Your task to perform on an android device: Go to CNN.com Image 0: 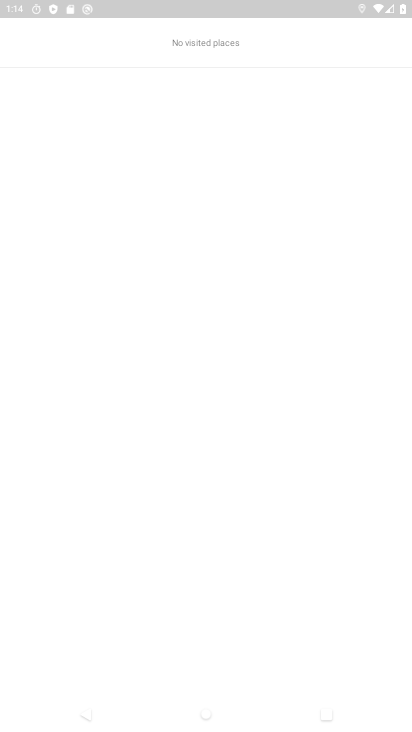
Step 0: press home button
Your task to perform on an android device: Go to CNN.com Image 1: 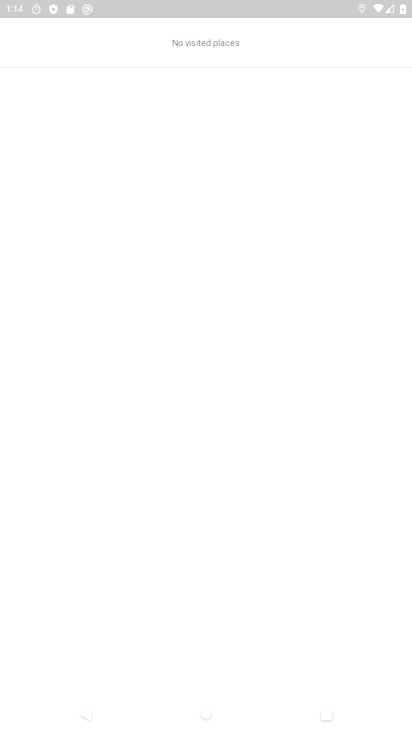
Step 1: drag from (123, 680) to (179, 266)
Your task to perform on an android device: Go to CNN.com Image 2: 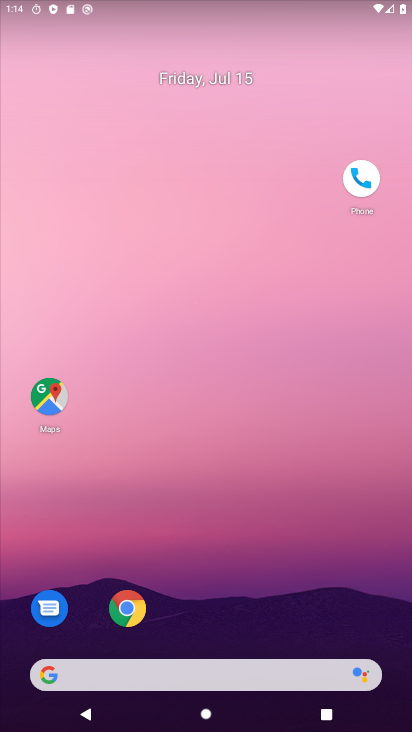
Step 2: drag from (163, 640) to (227, 112)
Your task to perform on an android device: Go to CNN.com Image 3: 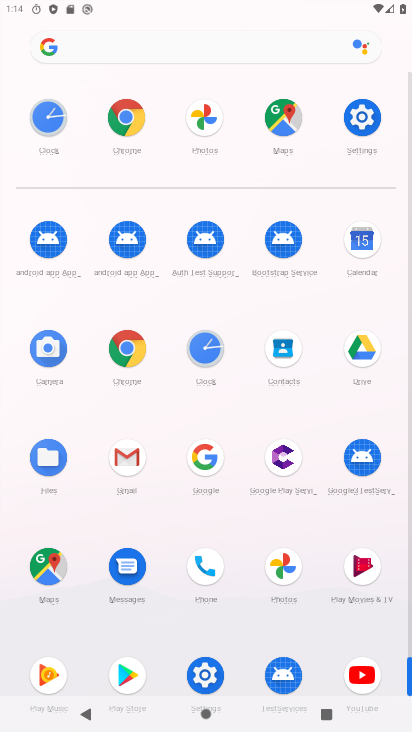
Step 3: click (163, 30)
Your task to perform on an android device: Go to CNN.com Image 4: 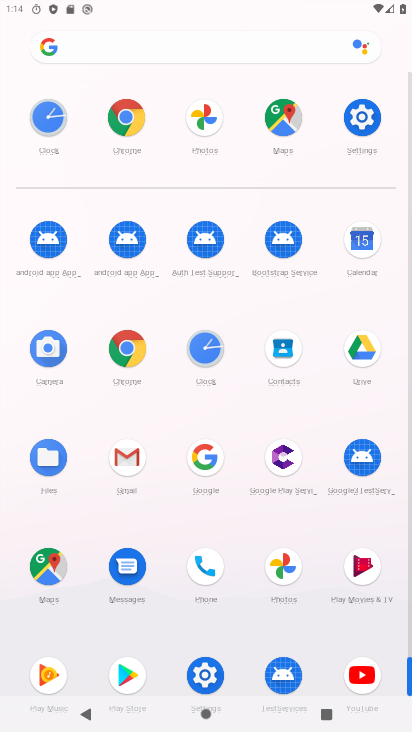
Step 4: click (163, 30)
Your task to perform on an android device: Go to CNN.com Image 5: 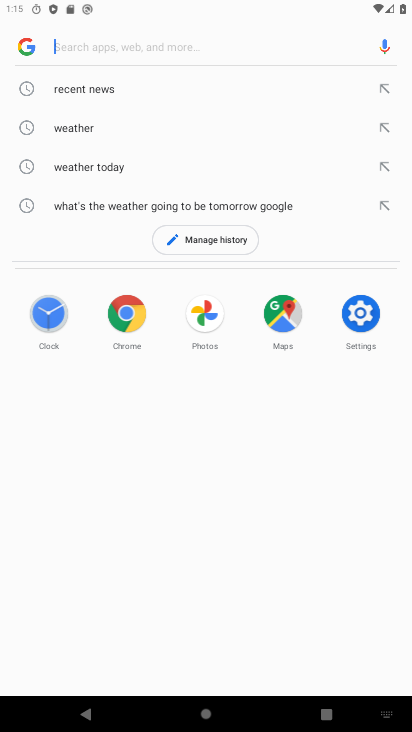
Step 5: type "cnn"
Your task to perform on an android device: Go to CNN.com Image 6: 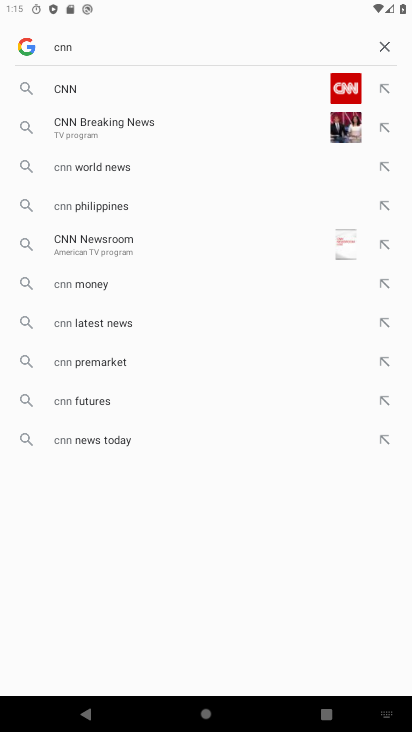
Step 6: click (83, 82)
Your task to perform on an android device: Go to CNN.com Image 7: 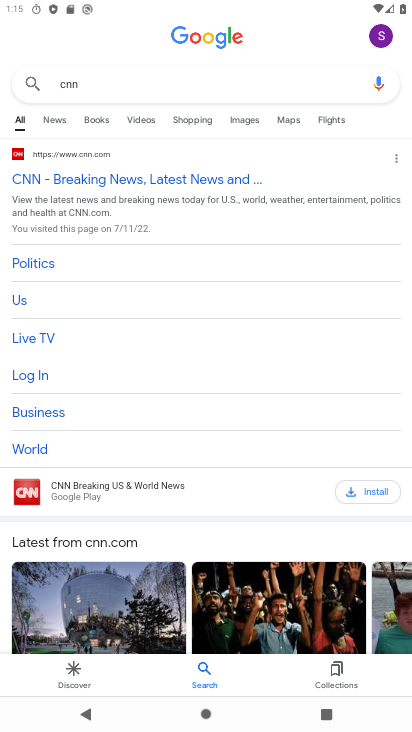
Step 7: drag from (141, 432) to (271, 633)
Your task to perform on an android device: Go to CNN.com Image 8: 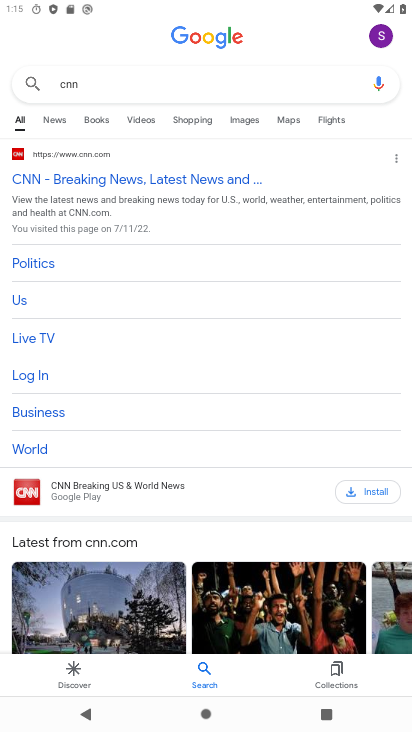
Step 8: click (79, 167)
Your task to perform on an android device: Go to CNN.com Image 9: 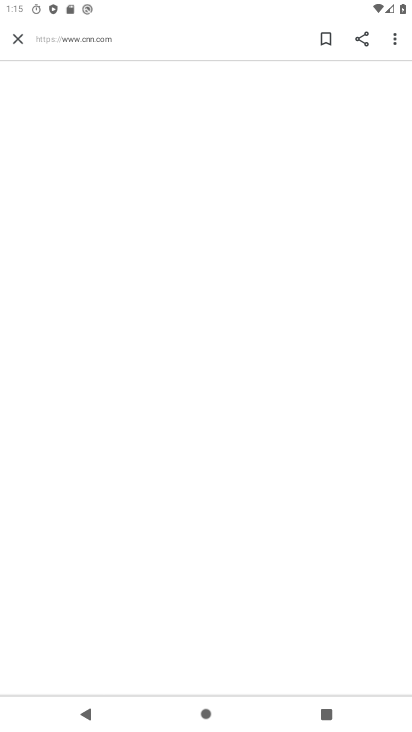
Step 9: task complete